Your task to perform on an android device: Do I have any events this weekend? Image 0: 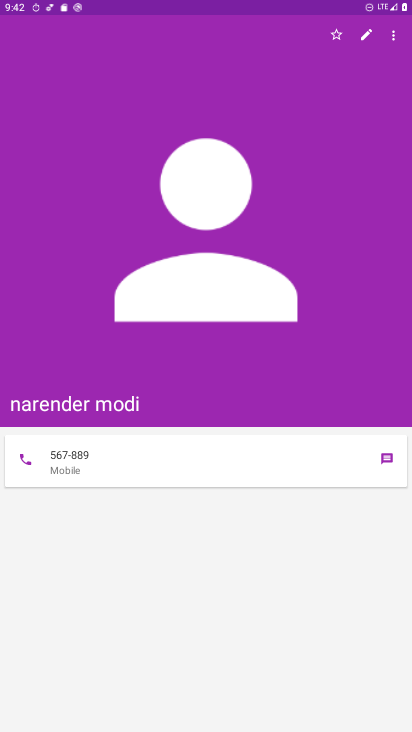
Step 0: press home button
Your task to perform on an android device: Do I have any events this weekend? Image 1: 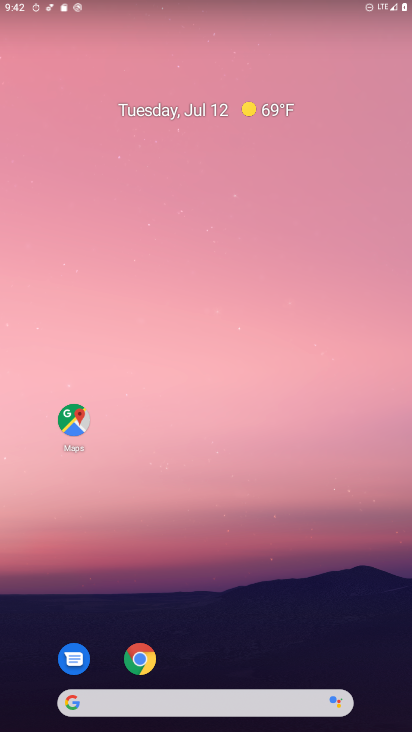
Step 1: drag from (207, 716) to (230, 138)
Your task to perform on an android device: Do I have any events this weekend? Image 2: 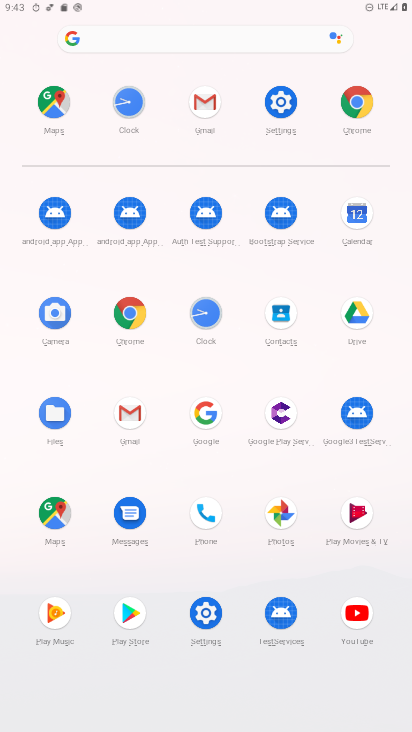
Step 2: click (361, 221)
Your task to perform on an android device: Do I have any events this weekend? Image 3: 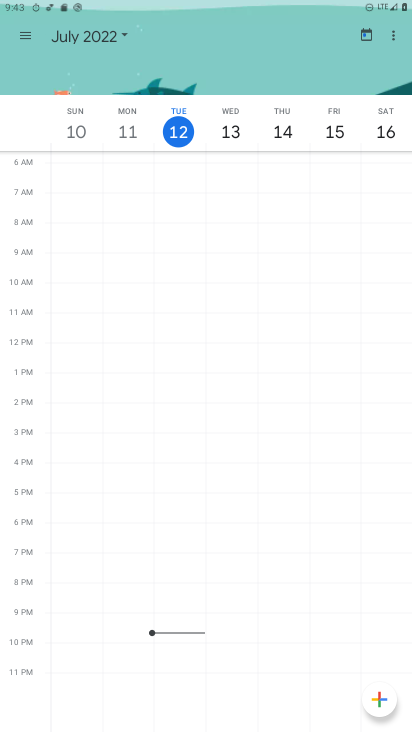
Step 3: click (377, 127)
Your task to perform on an android device: Do I have any events this weekend? Image 4: 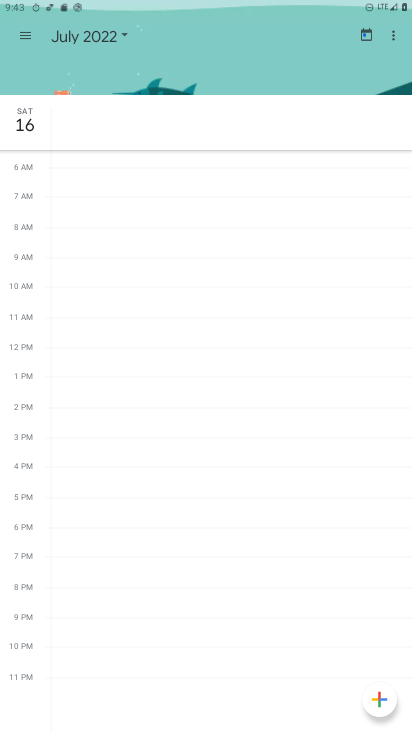
Step 4: task complete